Your task to perform on an android device: turn on bluetooth scan Image 0: 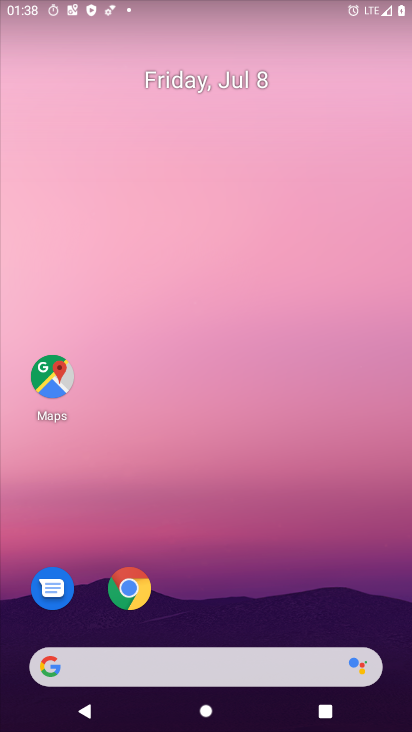
Step 0: drag from (226, 573) to (204, 9)
Your task to perform on an android device: turn on bluetooth scan Image 1: 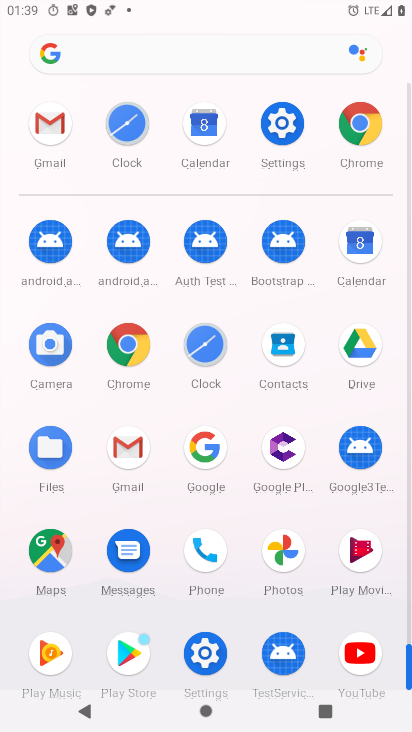
Step 1: click (291, 114)
Your task to perform on an android device: turn on bluetooth scan Image 2: 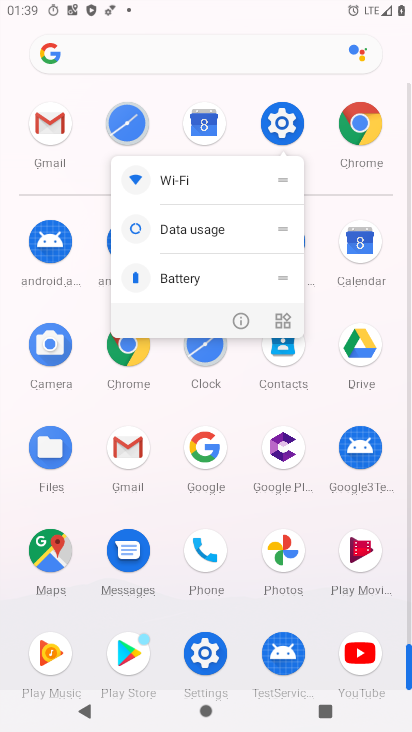
Step 2: click (245, 311)
Your task to perform on an android device: turn on bluetooth scan Image 3: 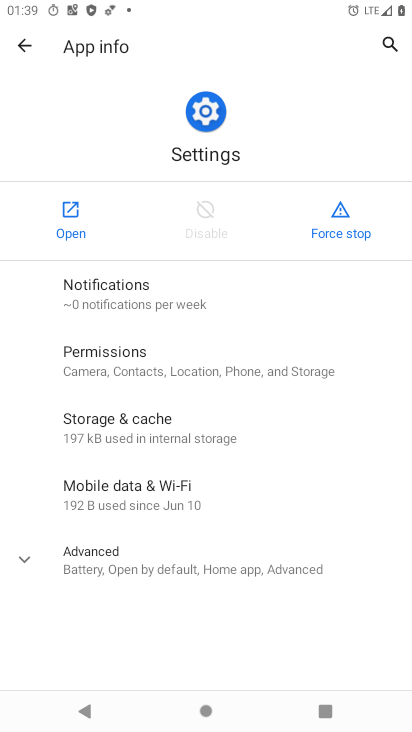
Step 3: click (81, 214)
Your task to perform on an android device: turn on bluetooth scan Image 4: 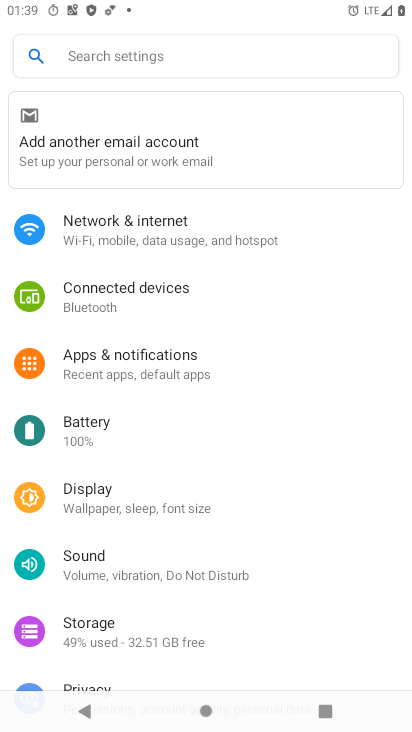
Step 4: drag from (160, 630) to (93, 147)
Your task to perform on an android device: turn on bluetooth scan Image 5: 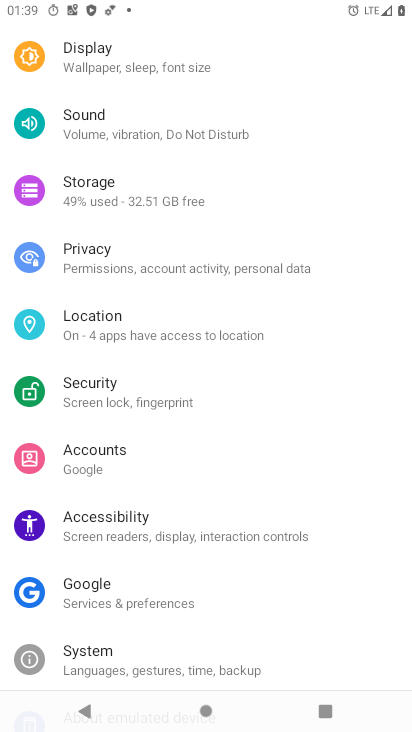
Step 5: drag from (179, 617) to (166, 291)
Your task to perform on an android device: turn on bluetooth scan Image 6: 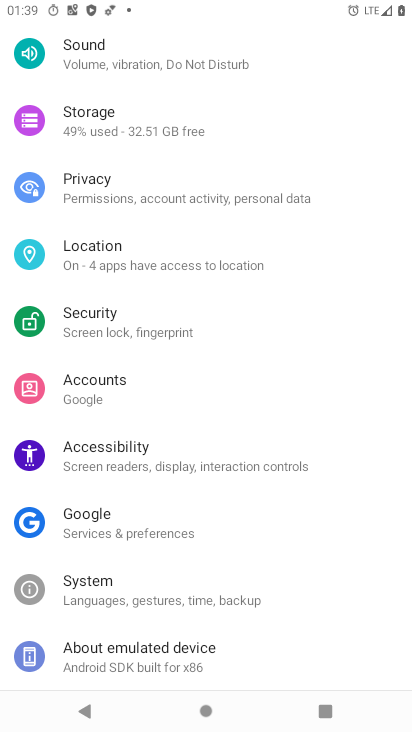
Step 6: drag from (153, 190) to (227, 501)
Your task to perform on an android device: turn on bluetooth scan Image 7: 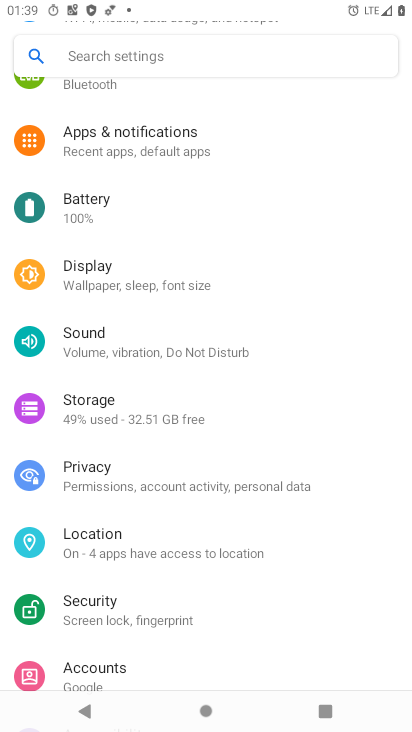
Step 7: drag from (151, 591) to (152, 297)
Your task to perform on an android device: turn on bluetooth scan Image 8: 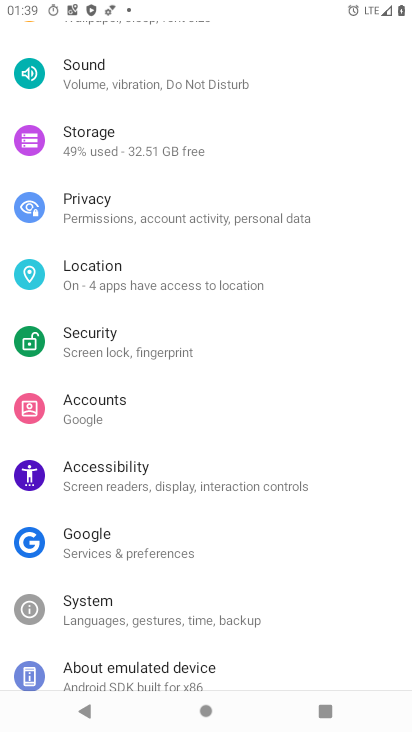
Step 8: click (117, 276)
Your task to perform on an android device: turn on bluetooth scan Image 9: 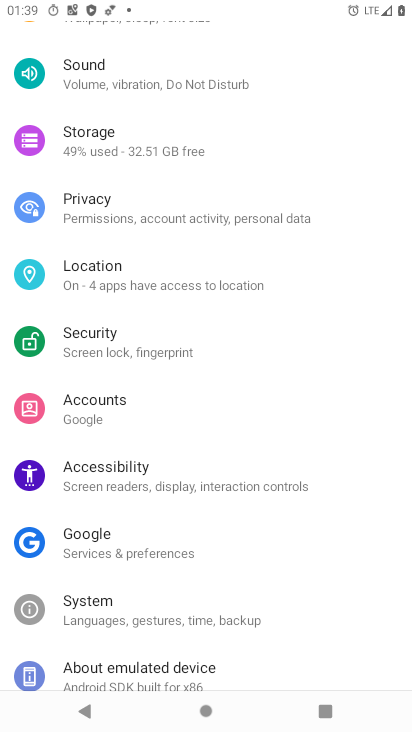
Step 9: click (117, 276)
Your task to perform on an android device: turn on bluetooth scan Image 10: 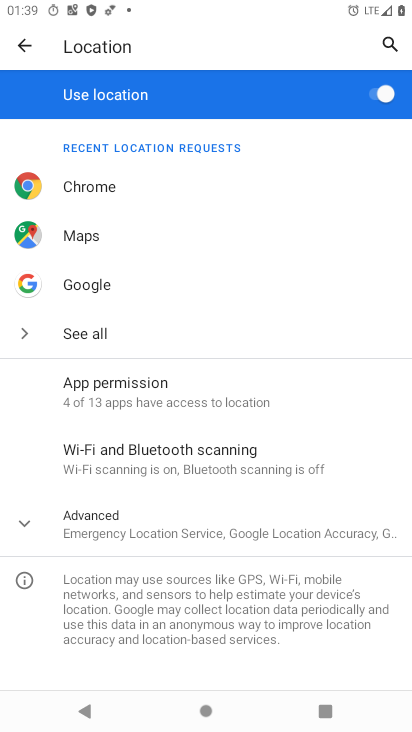
Step 10: click (149, 526)
Your task to perform on an android device: turn on bluetooth scan Image 11: 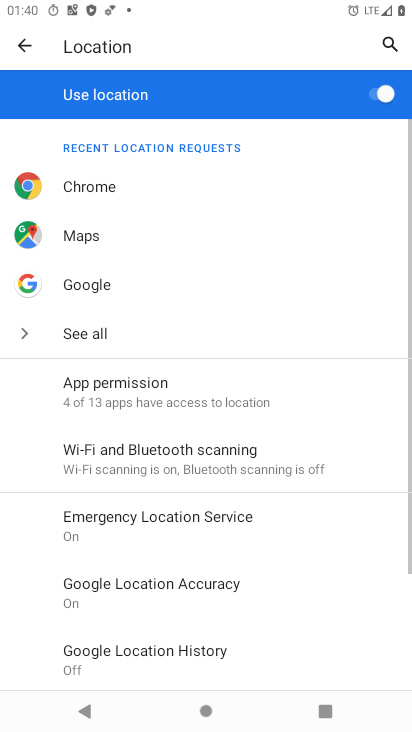
Step 11: click (203, 436)
Your task to perform on an android device: turn on bluetooth scan Image 12: 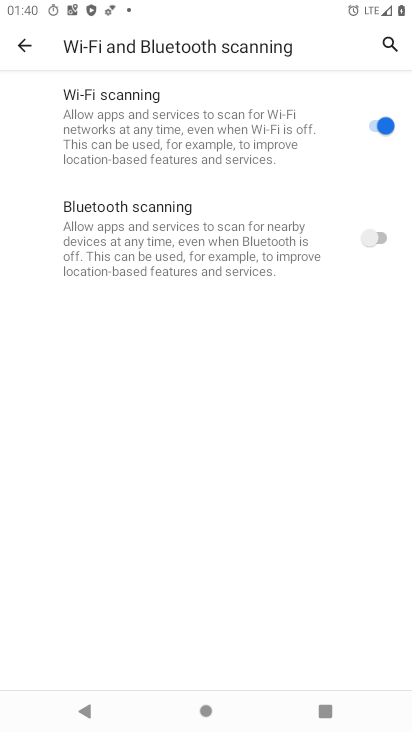
Step 12: click (243, 235)
Your task to perform on an android device: turn on bluetooth scan Image 13: 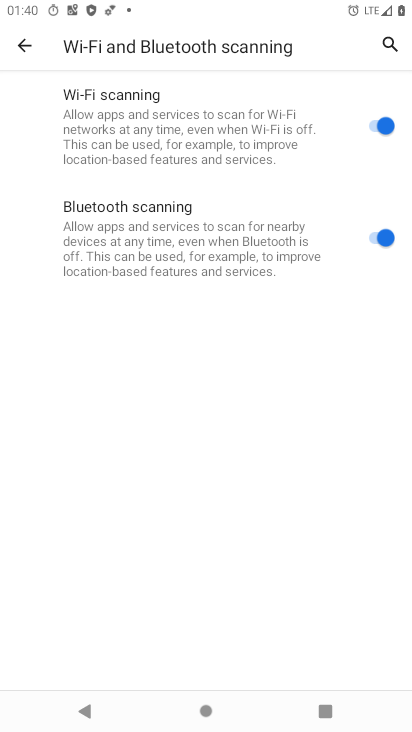
Step 13: task complete